Your task to perform on an android device: uninstall "ColorNote Notepad Notes" Image 0: 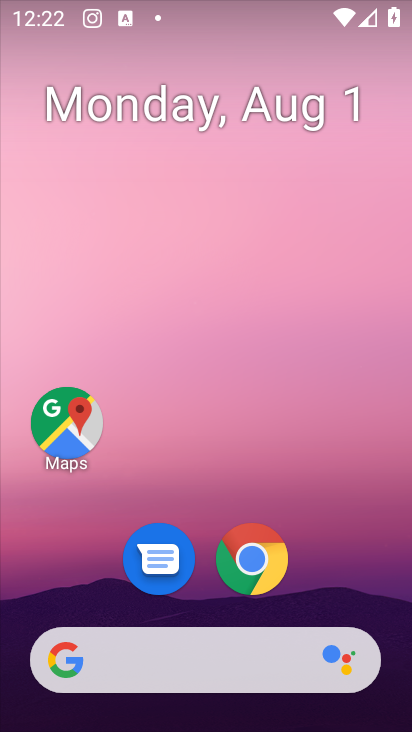
Step 0: drag from (112, 561) to (270, 34)
Your task to perform on an android device: uninstall "ColorNote Notepad Notes" Image 1: 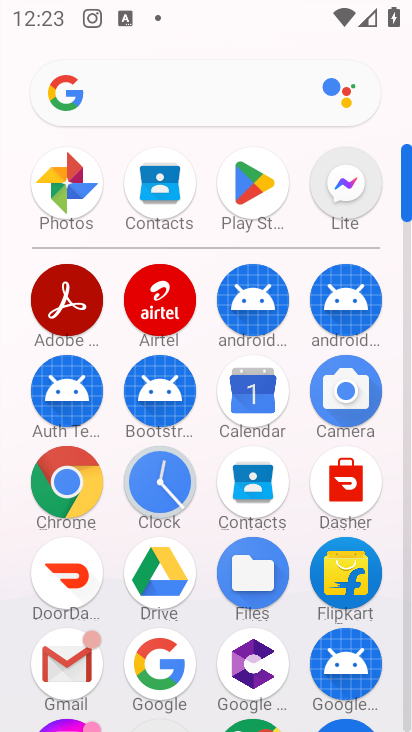
Step 1: click (251, 179)
Your task to perform on an android device: uninstall "ColorNote Notepad Notes" Image 2: 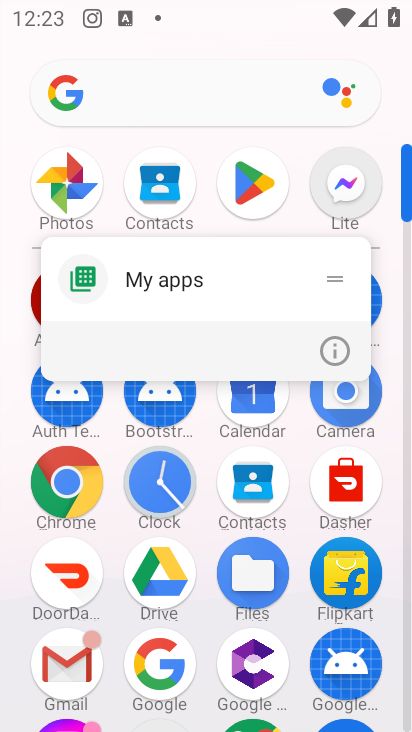
Step 2: click (246, 182)
Your task to perform on an android device: uninstall "ColorNote Notepad Notes" Image 3: 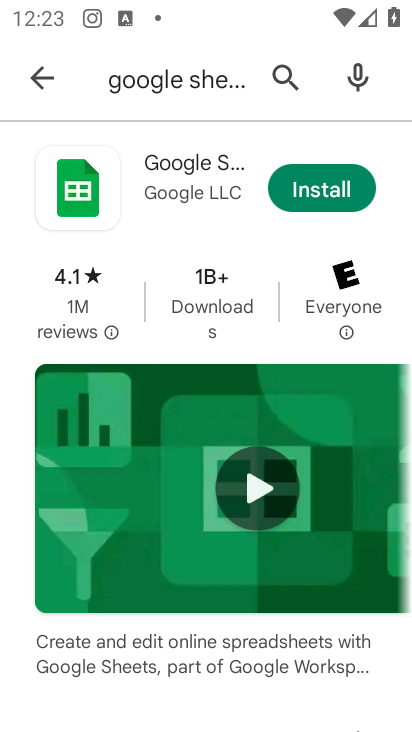
Step 3: click (286, 70)
Your task to perform on an android device: uninstall "ColorNote Notepad Notes" Image 4: 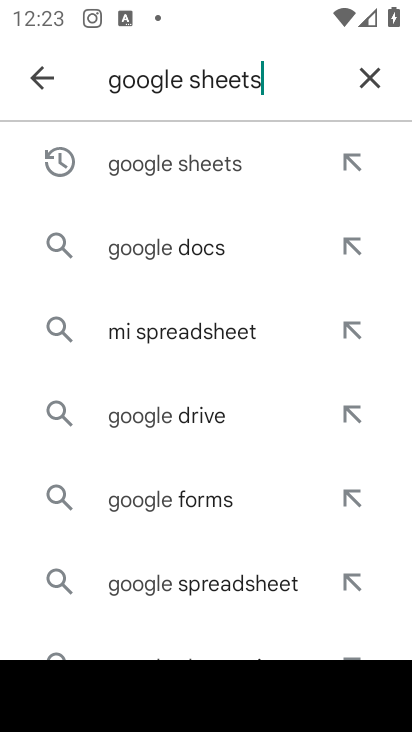
Step 4: click (363, 67)
Your task to perform on an android device: uninstall "ColorNote Notepad Notes" Image 5: 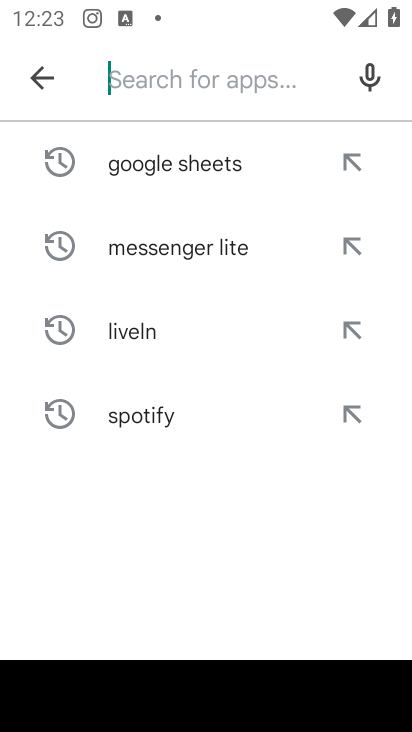
Step 5: click (192, 83)
Your task to perform on an android device: uninstall "ColorNote Notepad Notes" Image 6: 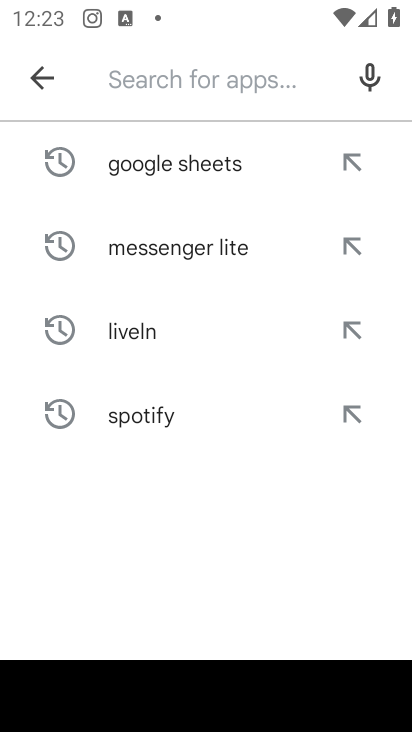
Step 6: type "color note pad"
Your task to perform on an android device: uninstall "ColorNote Notepad Notes" Image 7: 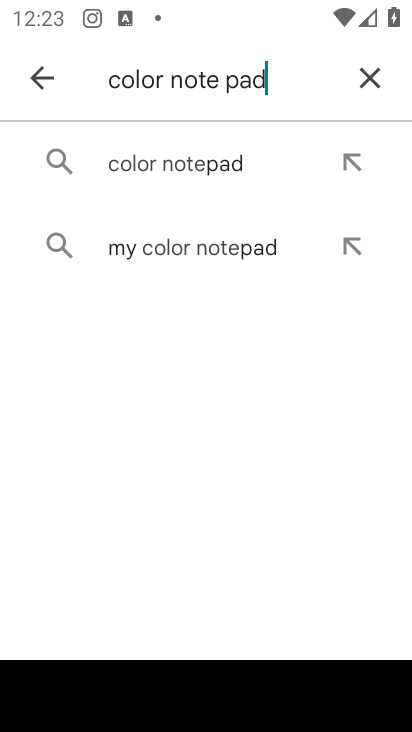
Step 7: click (190, 153)
Your task to perform on an android device: uninstall "ColorNote Notepad Notes" Image 8: 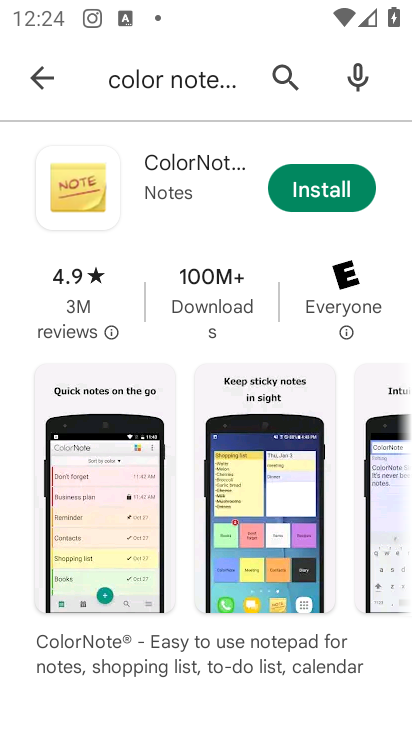
Step 8: task complete